Your task to perform on an android device: Go to Google Image 0: 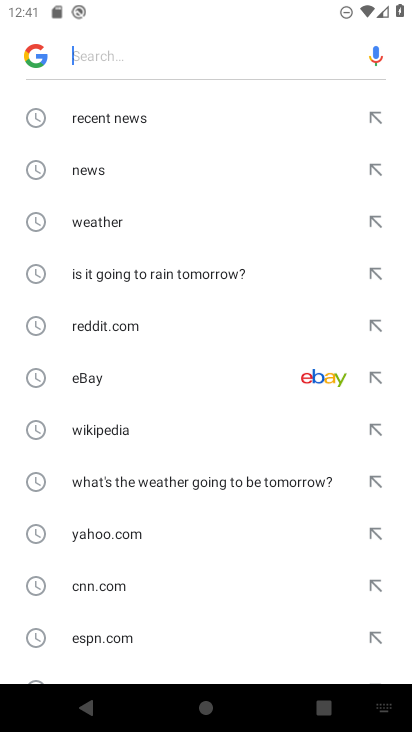
Step 0: task complete